Your task to perform on an android device: turn on bluetooth scan Image 0: 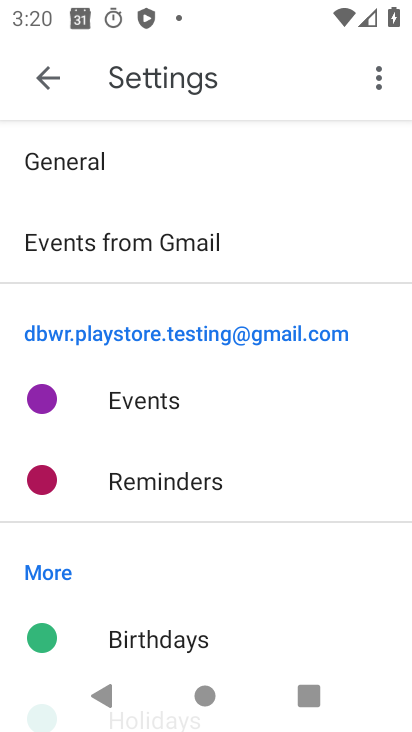
Step 0: press home button
Your task to perform on an android device: turn on bluetooth scan Image 1: 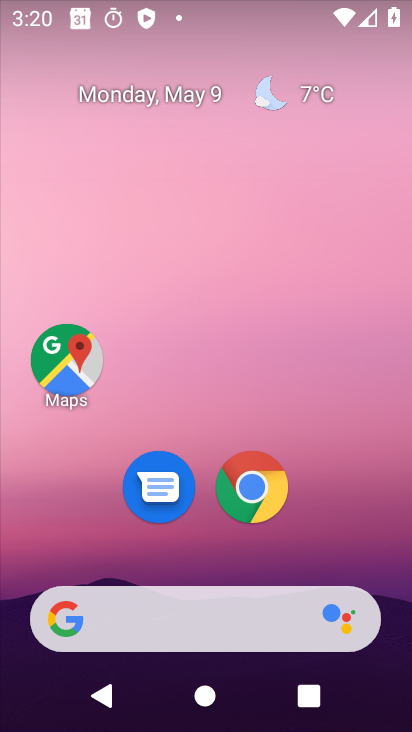
Step 1: drag from (316, 562) to (296, 23)
Your task to perform on an android device: turn on bluetooth scan Image 2: 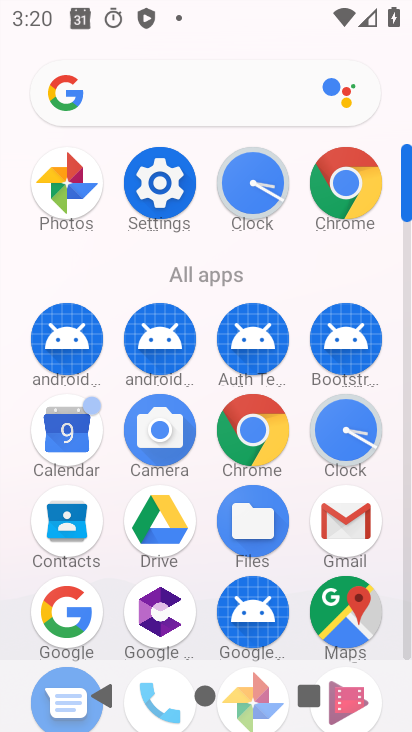
Step 2: click (142, 193)
Your task to perform on an android device: turn on bluetooth scan Image 3: 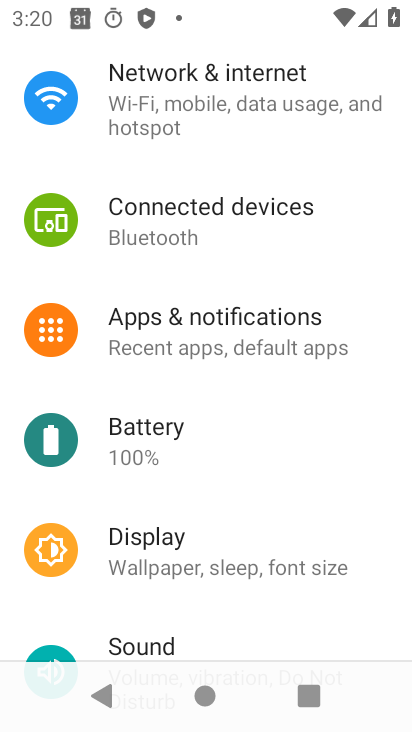
Step 3: drag from (276, 545) to (312, 113)
Your task to perform on an android device: turn on bluetooth scan Image 4: 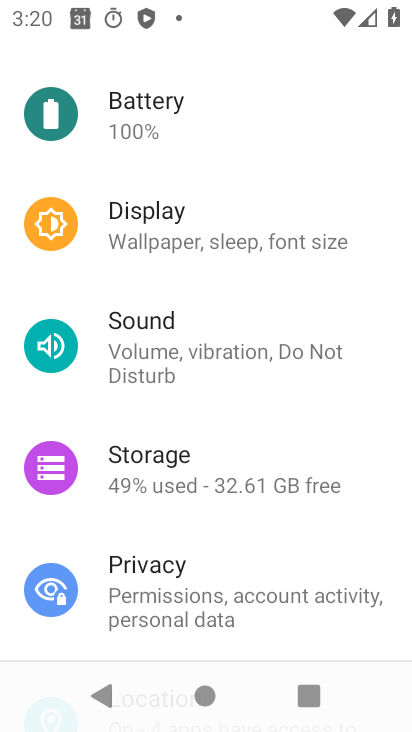
Step 4: drag from (260, 569) to (292, 90)
Your task to perform on an android device: turn on bluetooth scan Image 5: 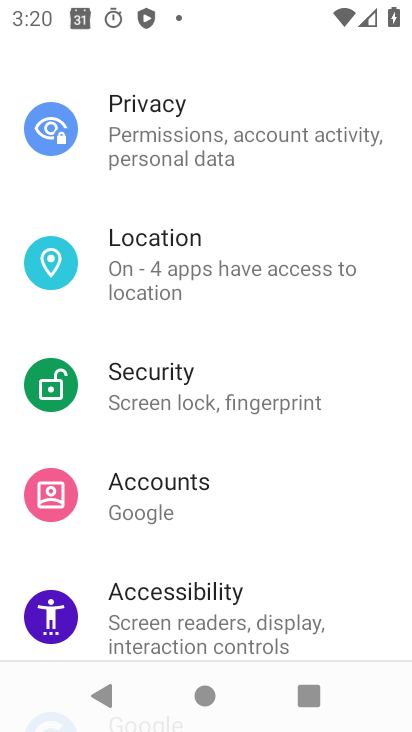
Step 5: click (240, 268)
Your task to perform on an android device: turn on bluetooth scan Image 6: 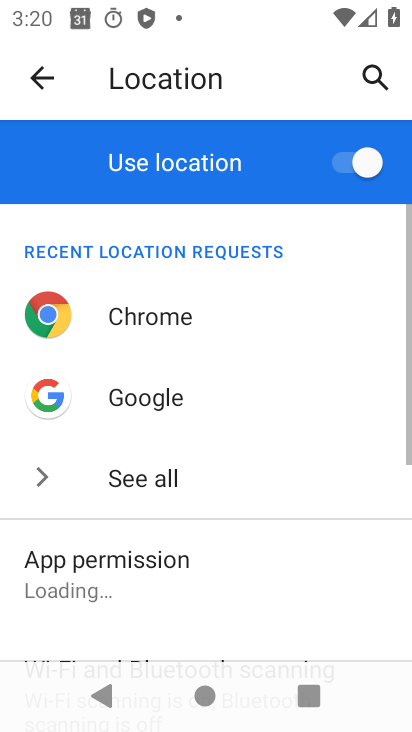
Step 6: drag from (305, 619) to (346, 125)
Your task to perform on an android device: turn on bluetooth scan Image 7: 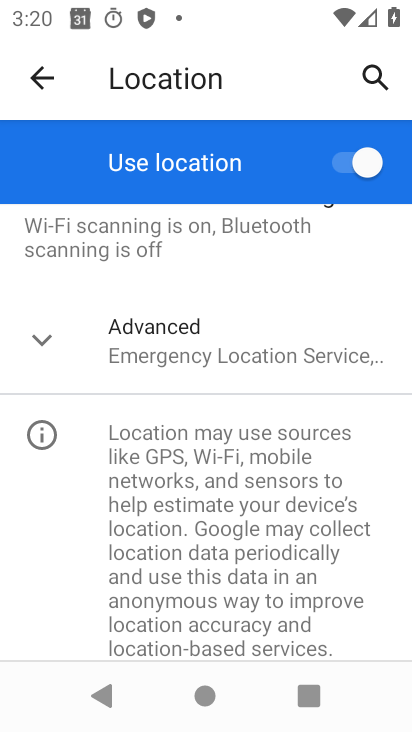
Step 7: click (299, 225)
Your task to perform on an android device: turn on bluetooth scan Image 8: 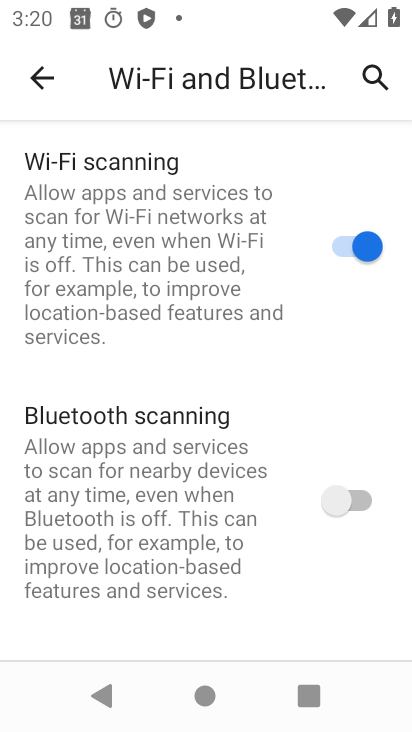
Step 8: click (358, 488)
Your task to perform on an android device: turn on bluetooth scan Image 9: 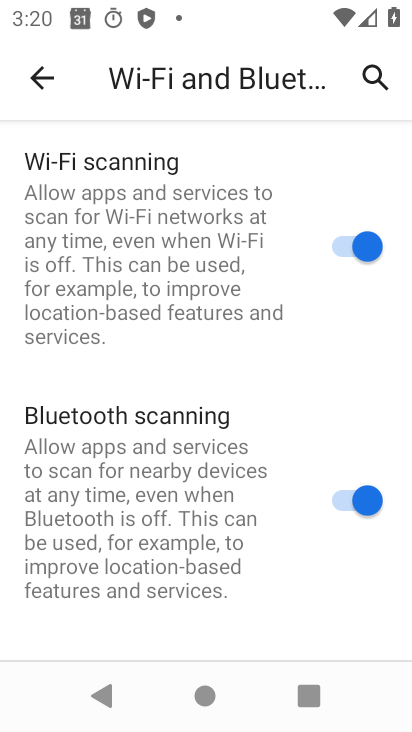
Step 9: task complete